Your task to perform on an android device: turn off wifi Image 0: 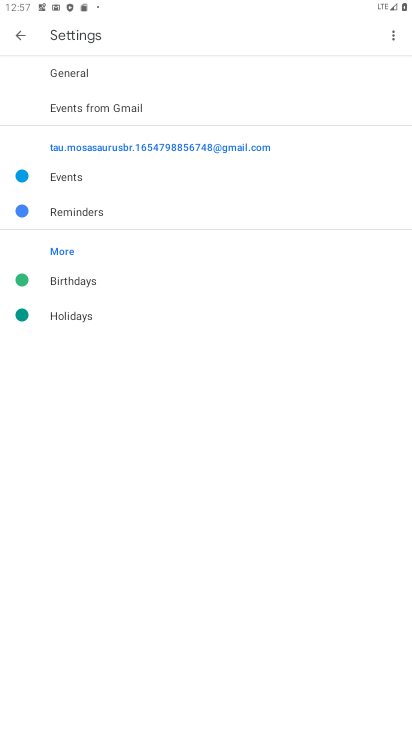
Step 0: press home button
Your task to perform on an android device: turn off wifi Image 1: 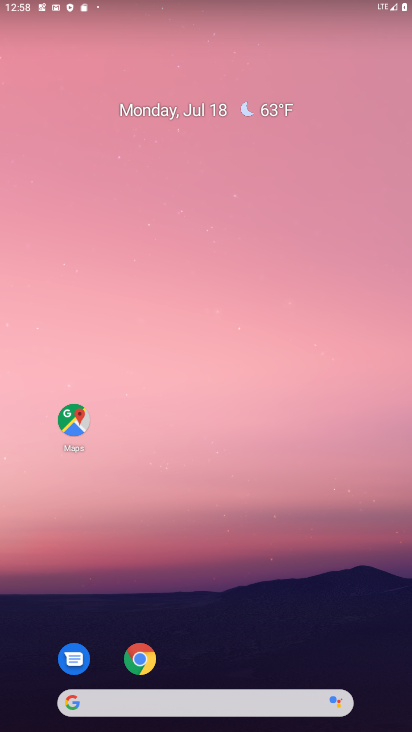
Step 1: drag from (210, 684) to (240, 74)
Your task to perform on an android device: turn off wifi Image 2: 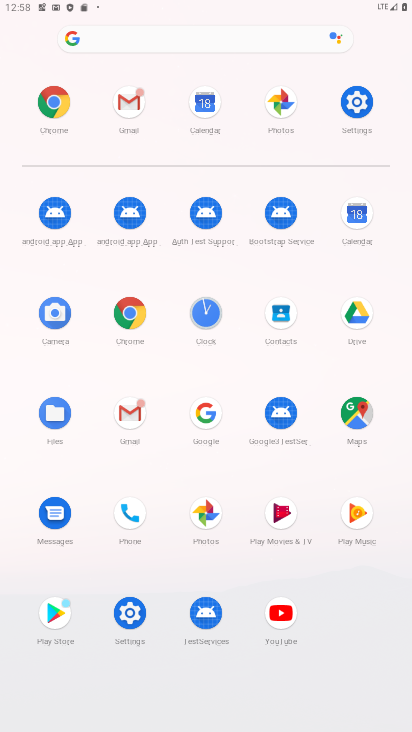
Step 2: click (364, 96)
Your task to perform on an android device: turn off wifi Image 3: 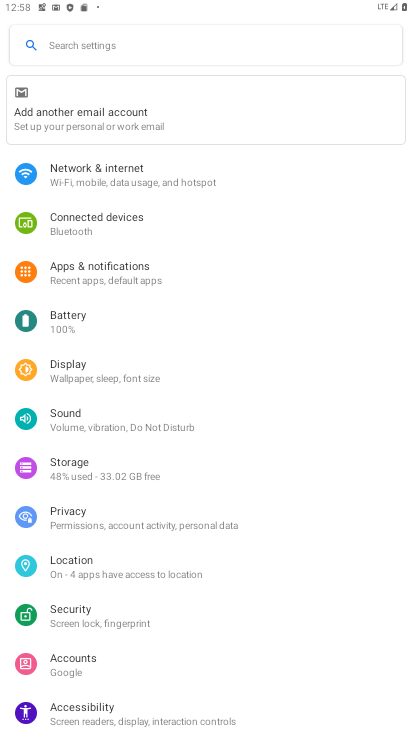
Step 3: click (105, 191)
Your task to perform on an android device: turn off wifi Image 4: 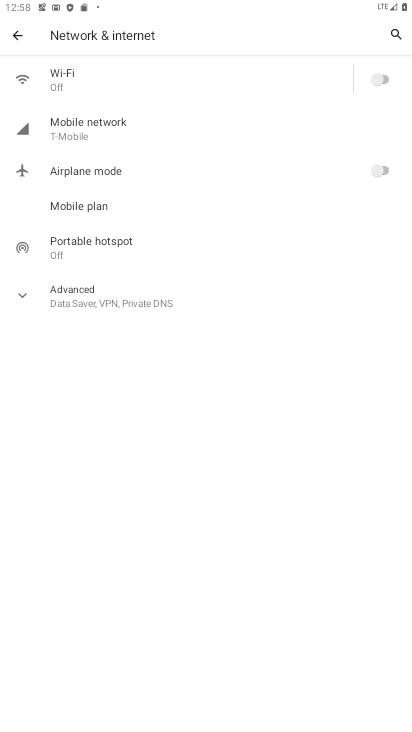
Step 4: task complete